Your task to perform on an android device: set the timer Image 0: 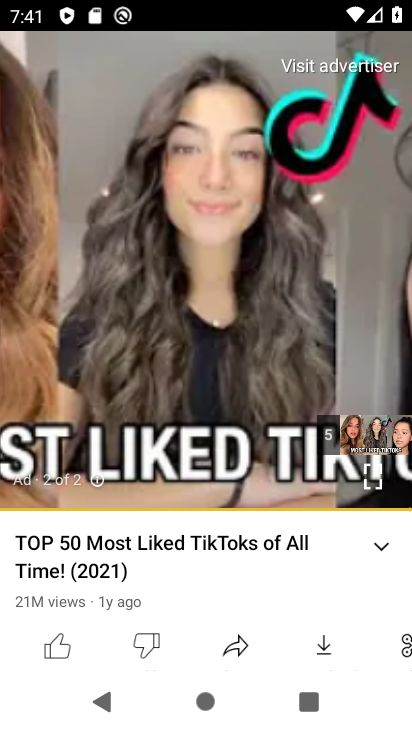
Step 0: press home button
Your task to perform on an android device: set the timer Image 1: 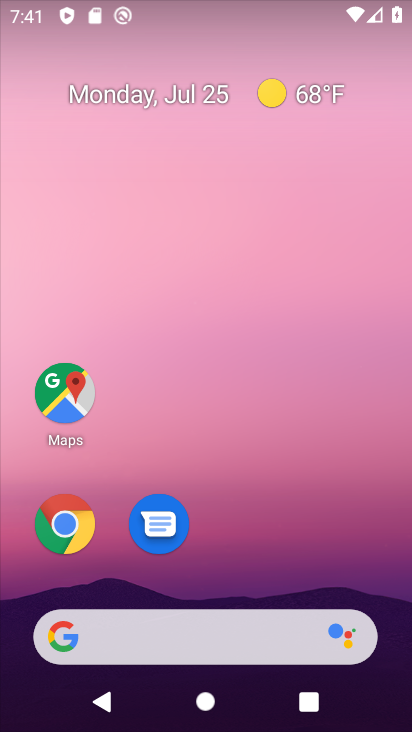
Step 1: drag from (330, 522) to (293, 3)
Your task to perform on an android device: set the timer Image 2: 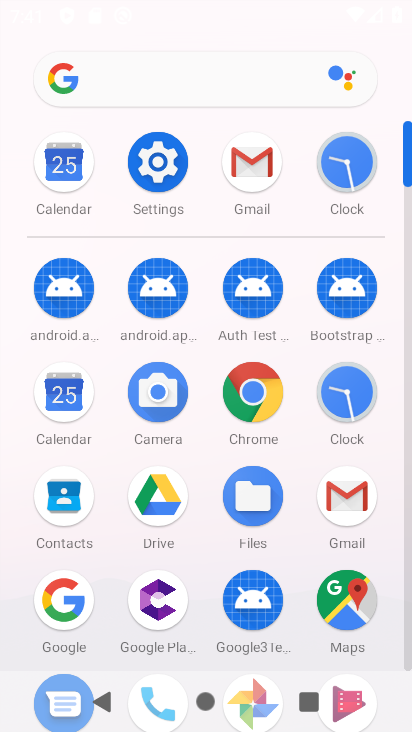
Step 2: click (341, 214)
Your task to perform on an android device: set the timer Image 3: 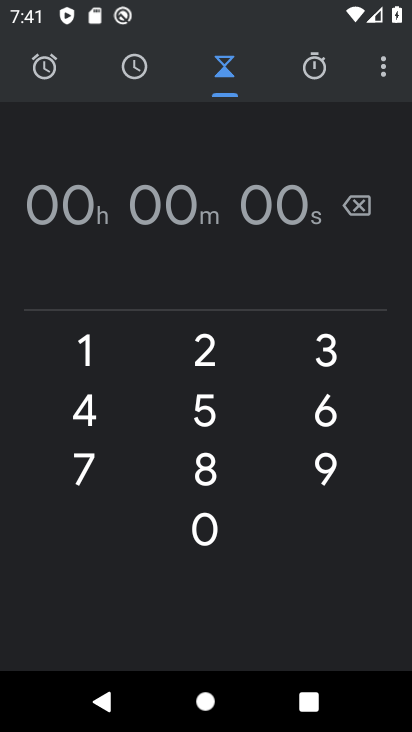
Step 3: click (92, 353)
Your task to perform on an android device: set the timer Image 4: 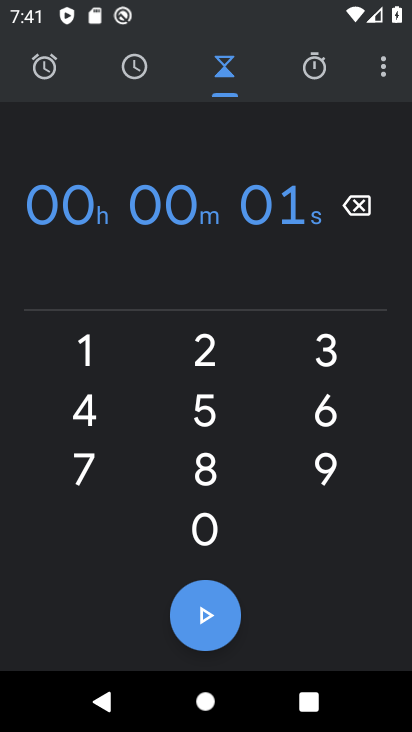
Step 4: task complete